Your task to perform on an android device: toggle data saver in the chrome app Image 0: 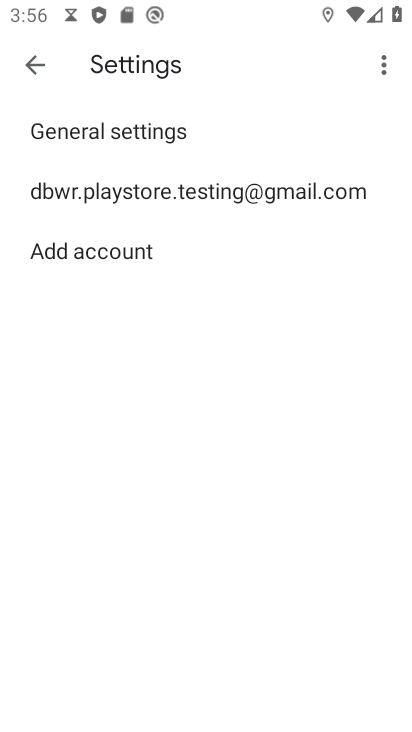
Step 0: press home button
Your task to perform on an android device: toggle data saver in the chrome app Image 1: 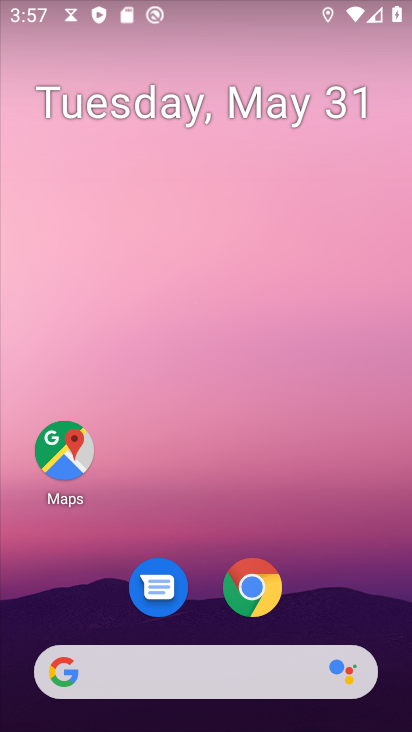
Step 1: click (255, 584)
Your task to perform on an android device: toggle data saver in the chrome app Image 2: 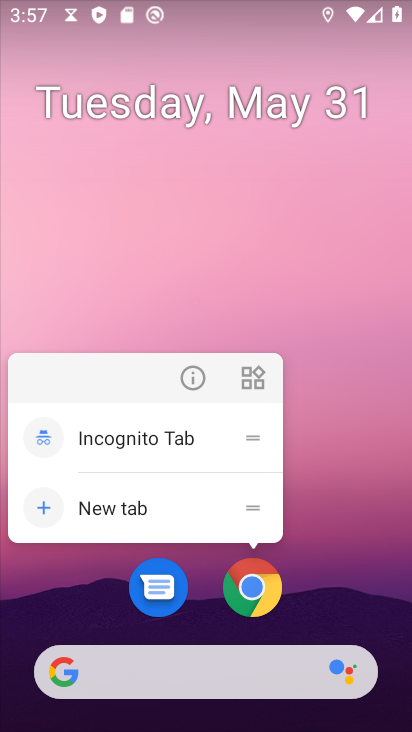
Step 2: click (255, 584)
Your task to perform on an android device: toggle data saver in the chrome app Image 3: 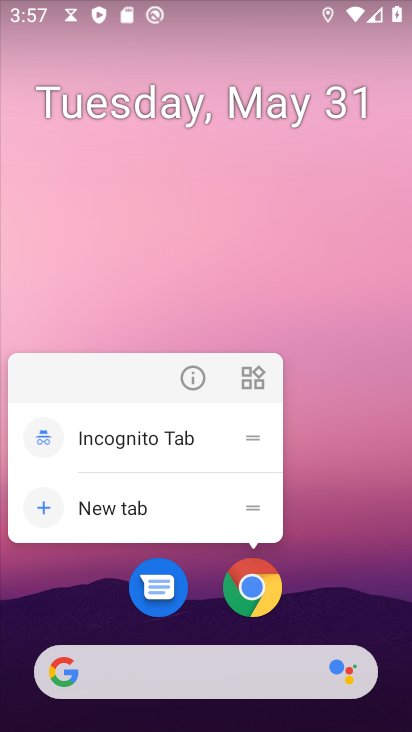
Step 3: click (254, 586)
Your task to perform on an android device: toggle data saver in the chrome app Image 4: 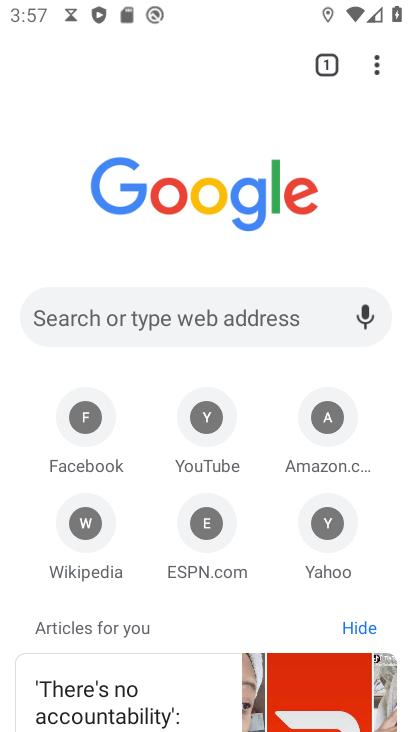
Step 4: drag from (380, 60) to (215, 547)
Your task to perform on an android device: toggle data saver in the chrome app Image 5: 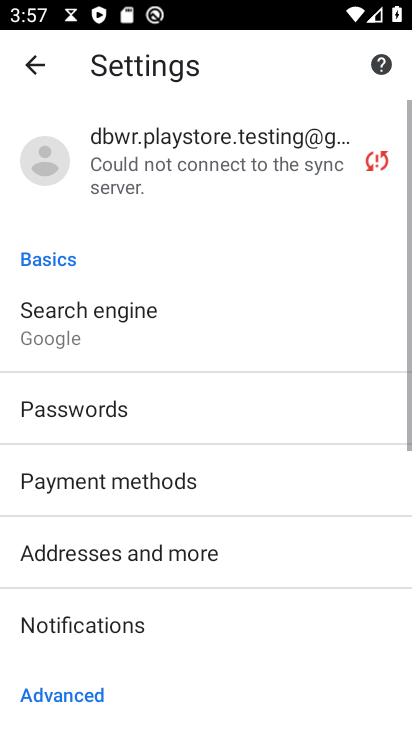
Step 5: drag from (149, 642) to (251, 277)
Your task to perform on an android device: toggle data saver in the chrome app Image 6: 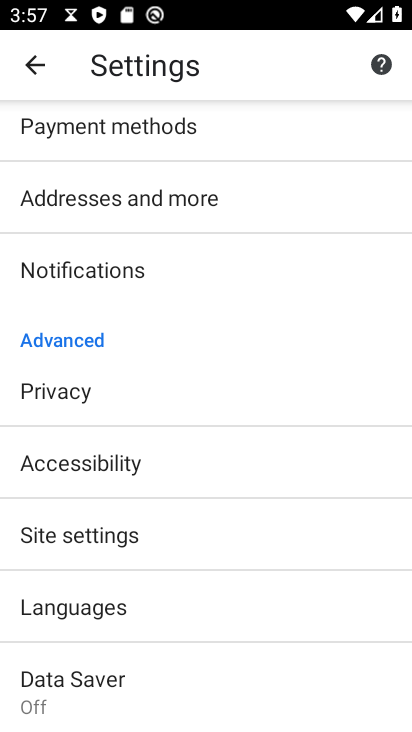
Step 6: click (159, 673)
Your task to perform on an android device: toggle data saver in the chrome app Image 7: 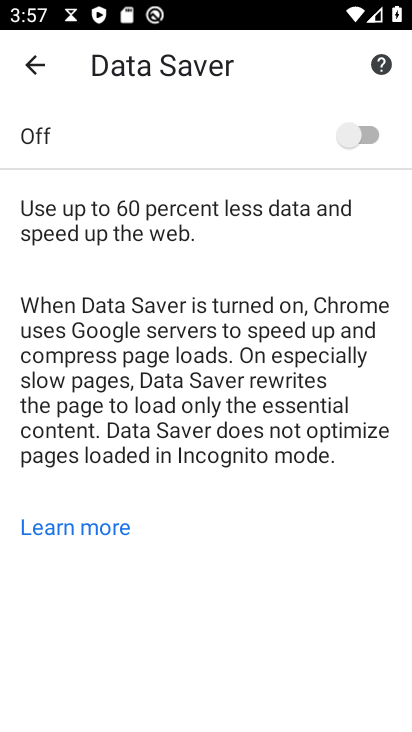
Step 7: click (383, 128)
Your task to perform on an android device: toggle data saver in the chrome app Image 8: 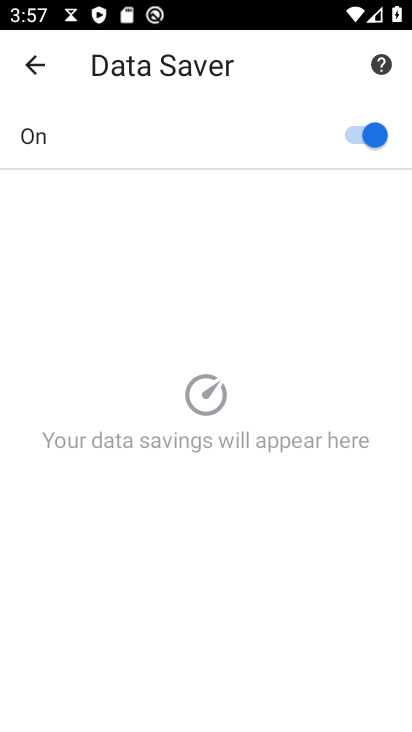
Step 8: task complete